Your task to perform on an android device: allow cookies in the chrome app Image 0: 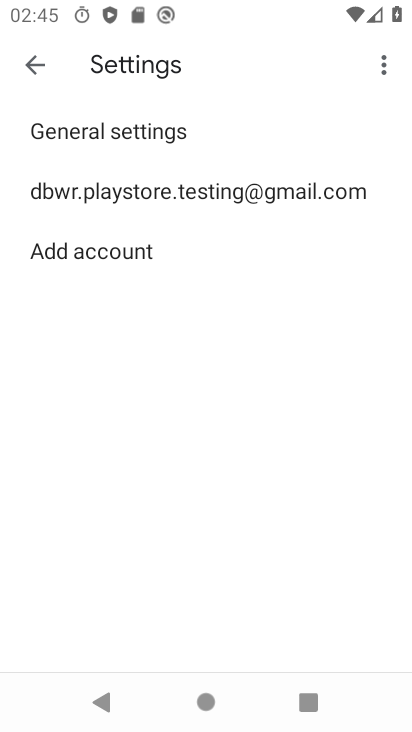
Step 0: drag from (302, 454) to (297, 205)
Your task to perform on an android device: allow cookies in the chrome app Image 1: 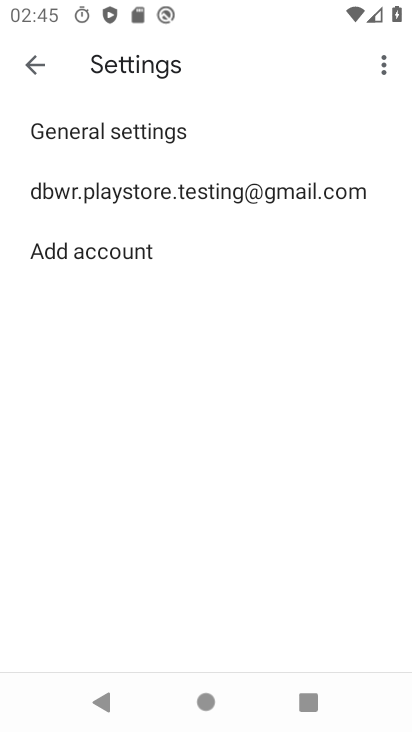
Step 1: press home button
Your task to perform on an android device: allow cookies in the chrome app Image 2: 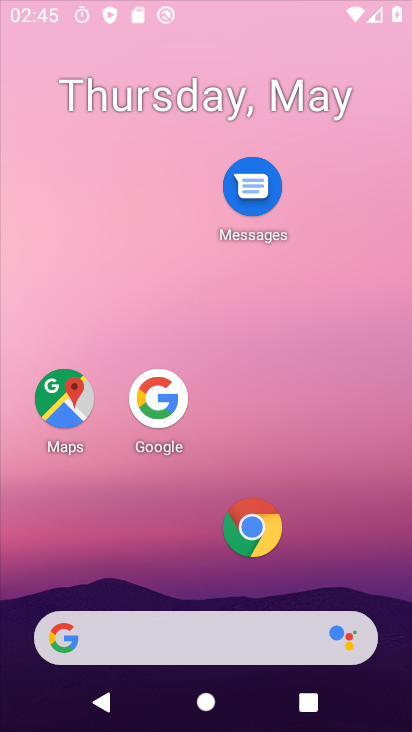
Step 2: drag from (245, 627) to (264, 259)
Your task to perform on an android device: allow cookies in the chrome app Image 3: 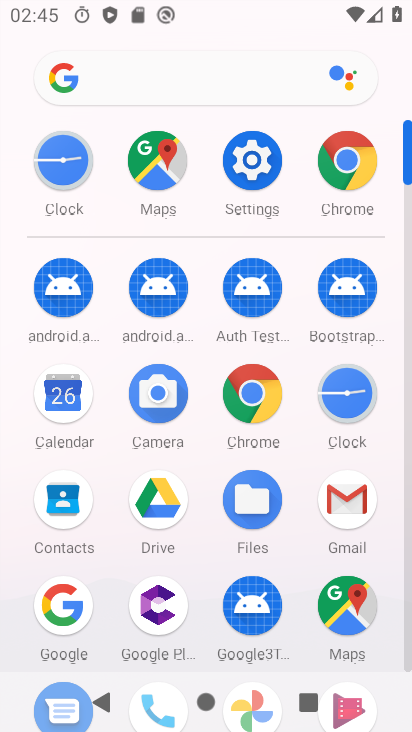
Step 3: click (259, 393)
Your task to perform on an android device: allow cookies in the chrome app Image 4: 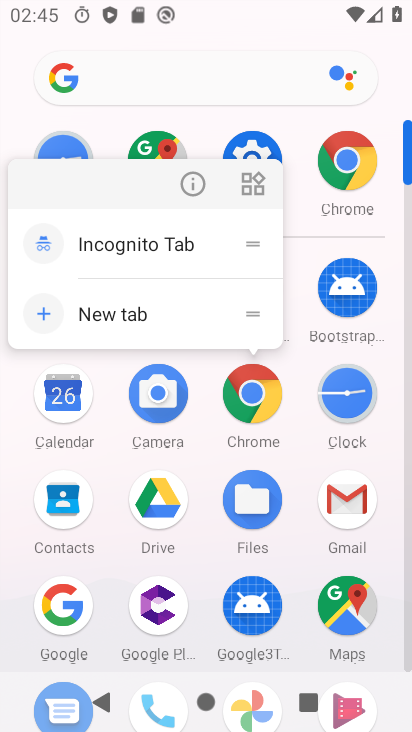
Step 4: click (195, 194)
Your task to perform on an android device: allow cookies in the chrome app Image 5: 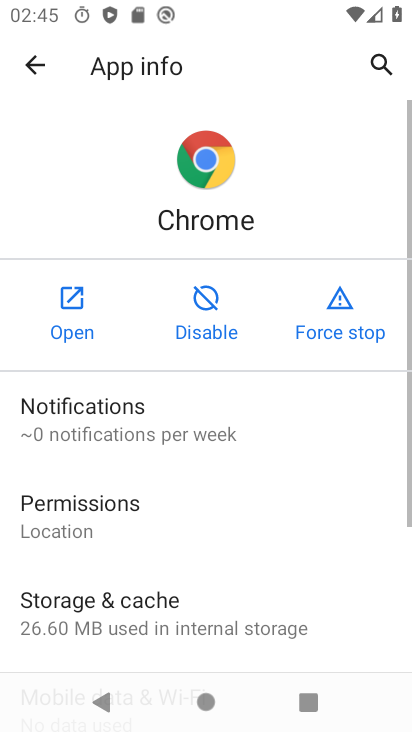
Step 5: click (72, 315)
Your task to perform on an android device: allow cookies in the chrome app Image 6: 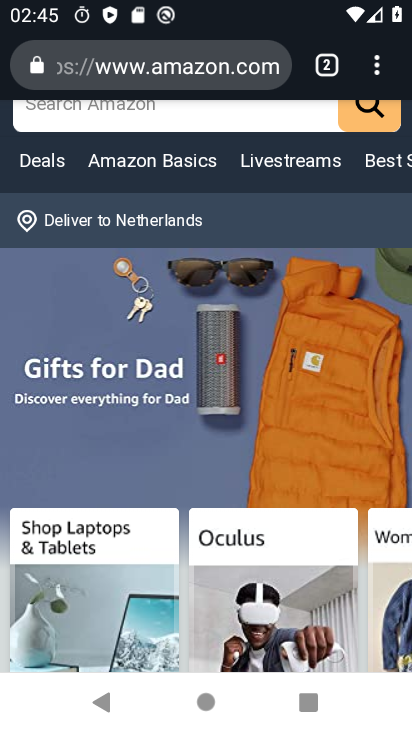
Step 6: click (385, 63)
Your task to perform on an android device: allow cookies in the chrome app Image 7: 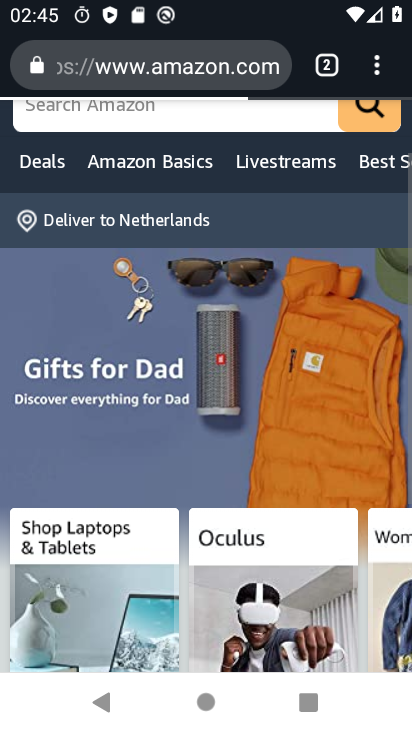
Step 7: click (384, 62)
Your task to perform on an android device: allow cookies in the chrome app Image 8: 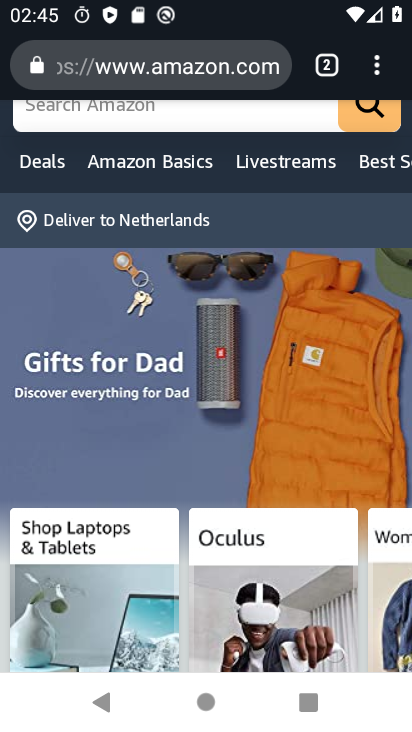
Step 8: click (374, 62)
Your task to perform on an android device: allow cookies in the chrome app Image 9: 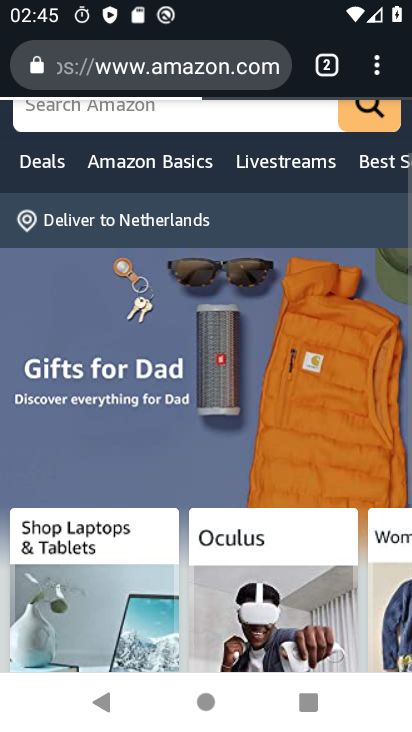
Step 9: click (374, 62)
Your task to perform on an android device: allow cookies in the chrome app Image 10: 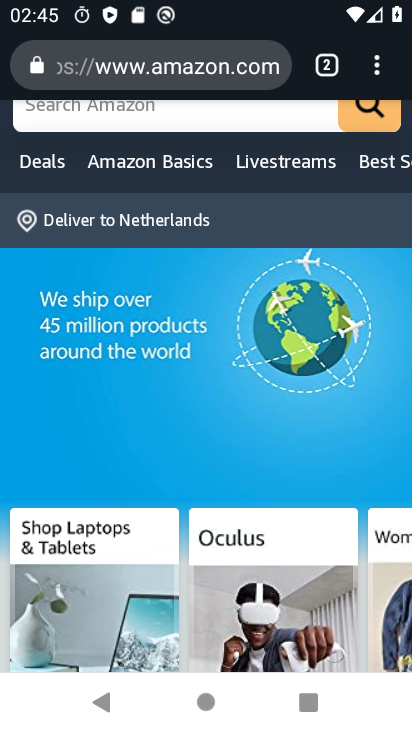
Step 10: click (378, 62)
Your task to perform on an android device: allow cookies in the chrome app Image 11: 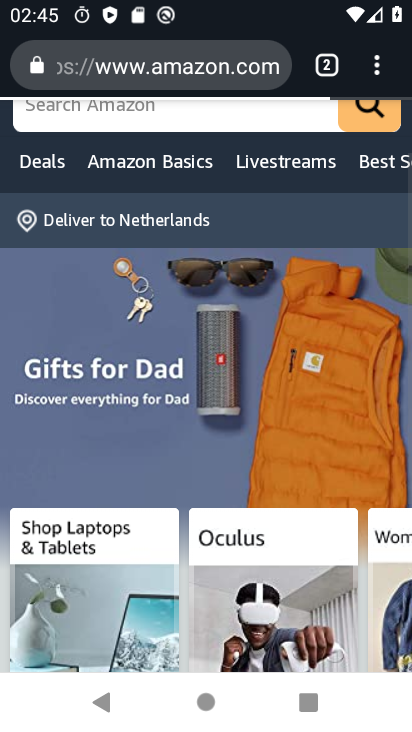
Step 11: click (378, 62)
Your task to perform on an android device: allow cookies in the chrome app Image 12: 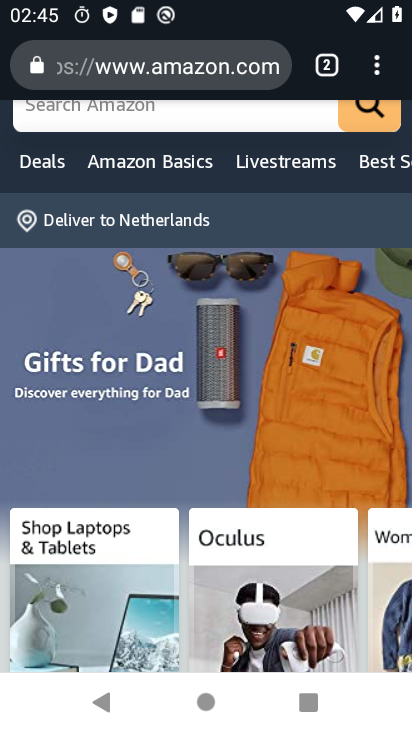
Step 12: click (378, 62)
Your task to perform on an android device: allow cookies in the chrome app Image 13: 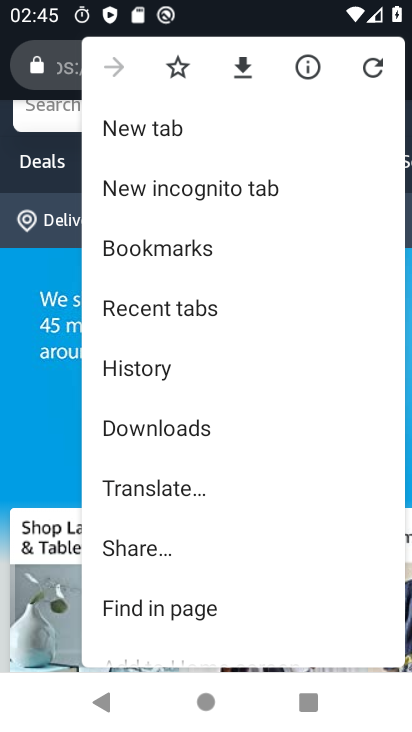
Step 13: drag from (152, 580) to (203, 164)
Your task to perform on an android device: allow cookies in the chrome app Image 14: 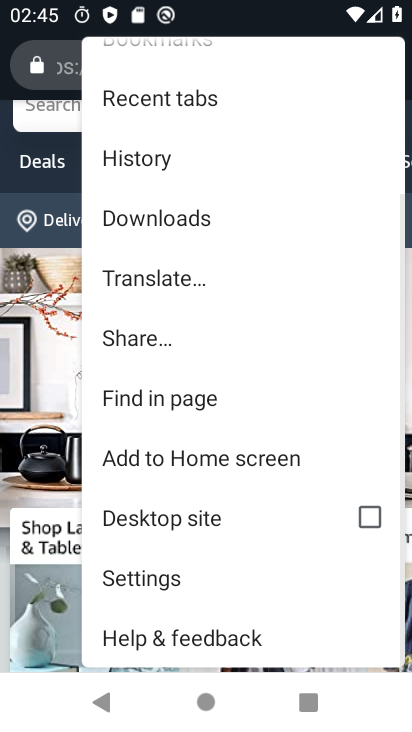
Step 14: click (179, 587)
Your task to perform on an android device: allow cookies in the chrome app Image 15: 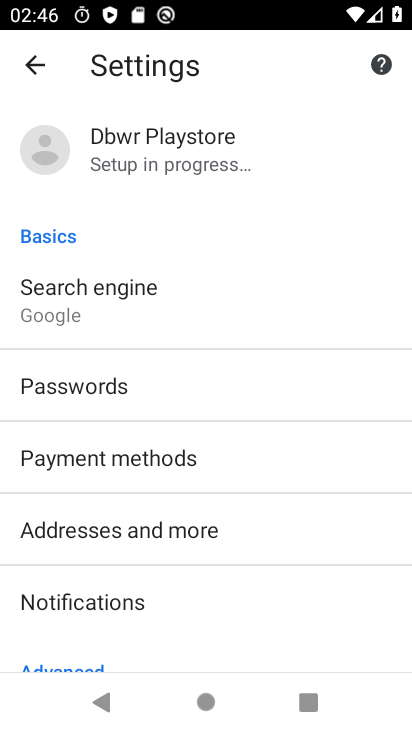
Step 15: drag from (144, 603) to (213, 162)
Your task to perform on an android device: allow cookies in the chrome app Image 16: 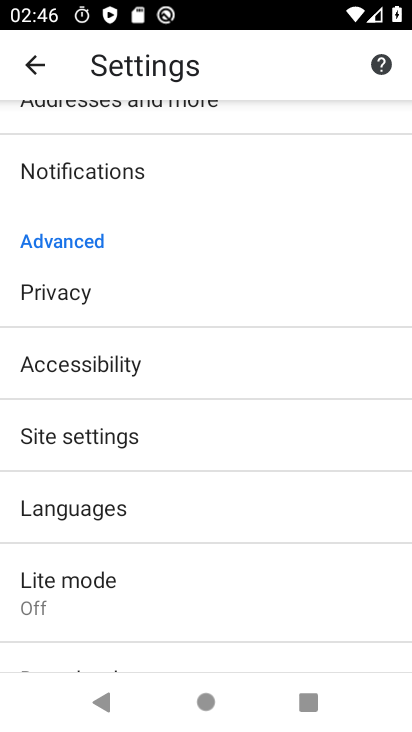
Step 16: click (123, 445)
Your task to perform on an android device: allow cookies in the chrome app Image 17: 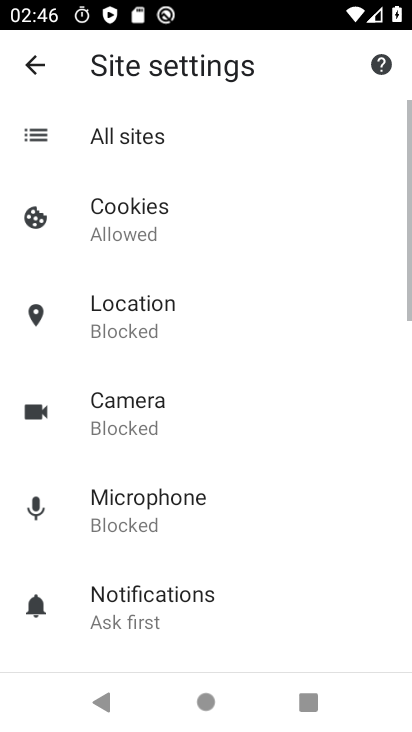
Step 17: click (170, 209)
Your task to perform on an android device: allow cookies in the chrome app Image 18: 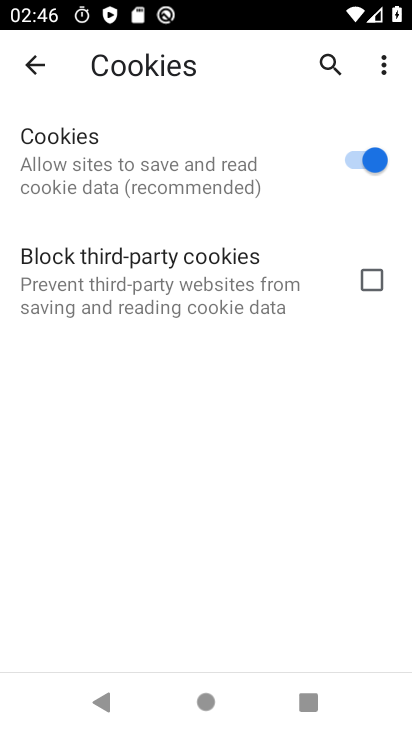
Step 18: task complete